Your task to perform on an android device: open device folders in google photos Image 0: 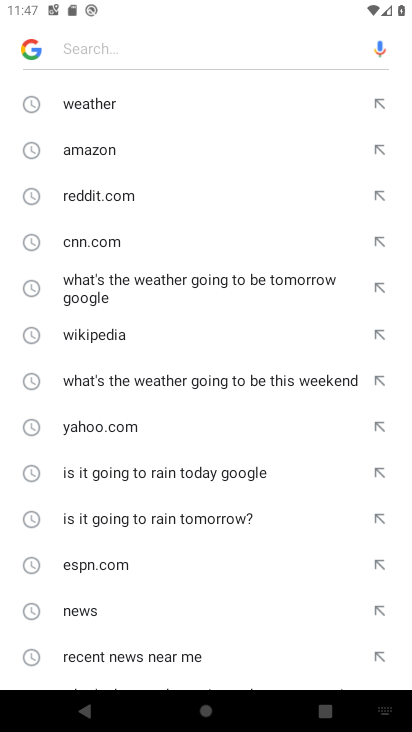
Step 0: press back button
Your task to perform on an android device: open device folders in google photos Image 1: 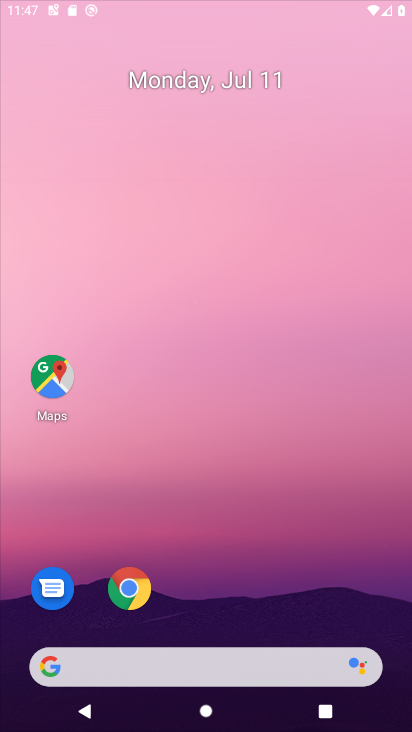
Step 1: press home button
Your task to perform on an android device: open device folders in google photos Image 2: 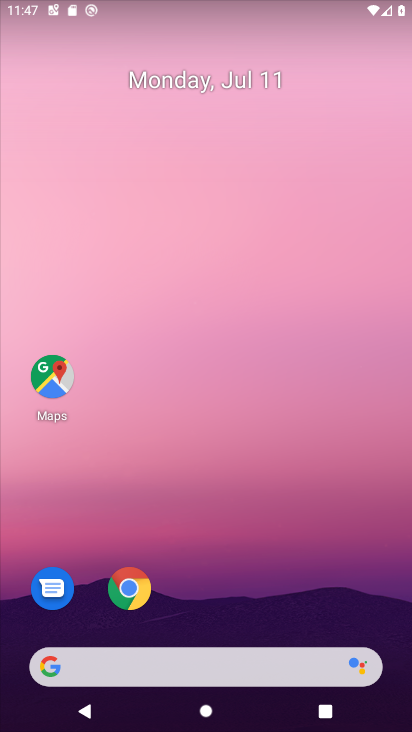
Step 2: drag from (253, 705) to (188, 256)
Your task to perform on an android device: open device folders in google photos Image 3: 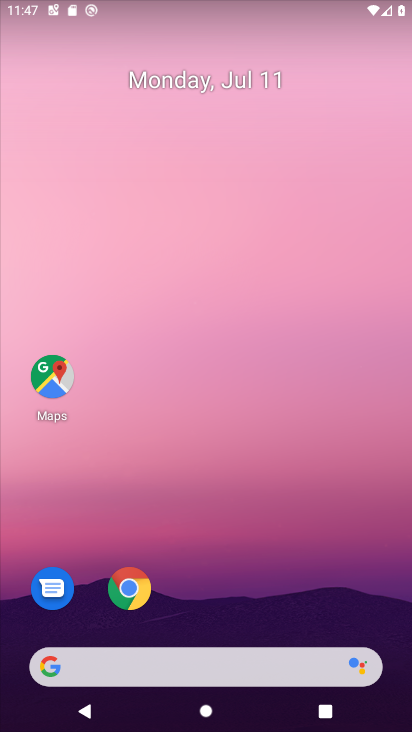
Step 3: drag from (232, 677) to (85, 56)
Your task to perform on an android device: open device folders in google photos Image 4: 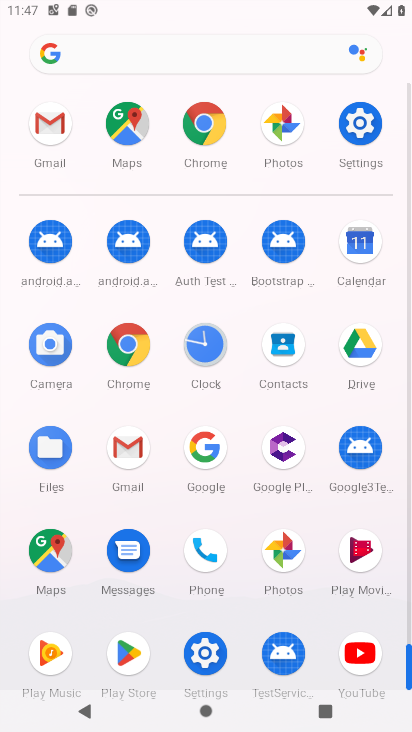
Step 4: drag from (267, 524) to (298, 553)
Your task to perform on an android device: open device folders in google photos Image 5: 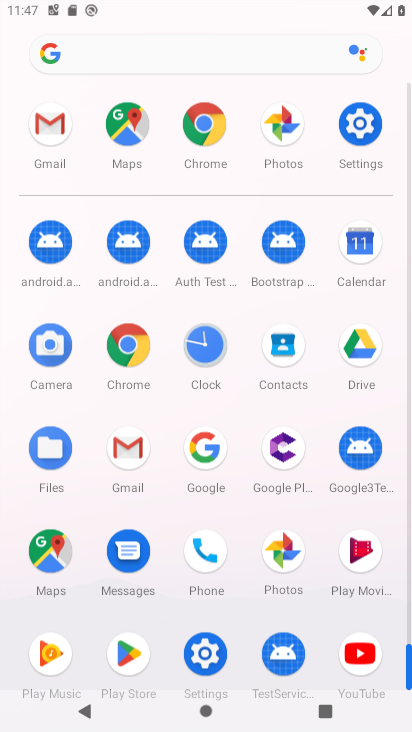
Step 5: click (299, 554)
Your task to perform on an android device: open device folders in google photos Image 6: 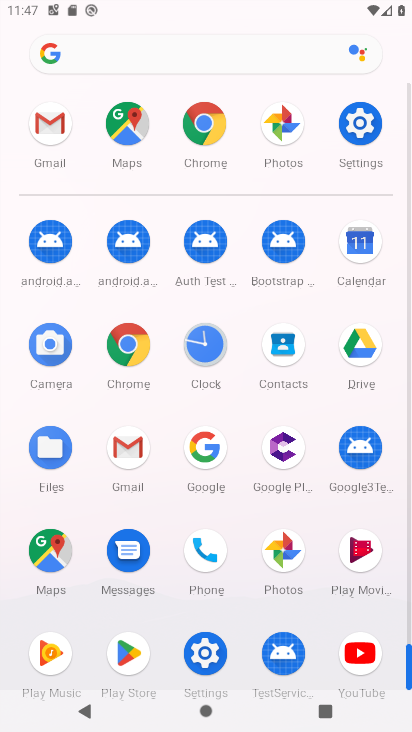
Step 6: click (300, 555)
Your task to perform on an android device: open device folders in google photos Image 7: 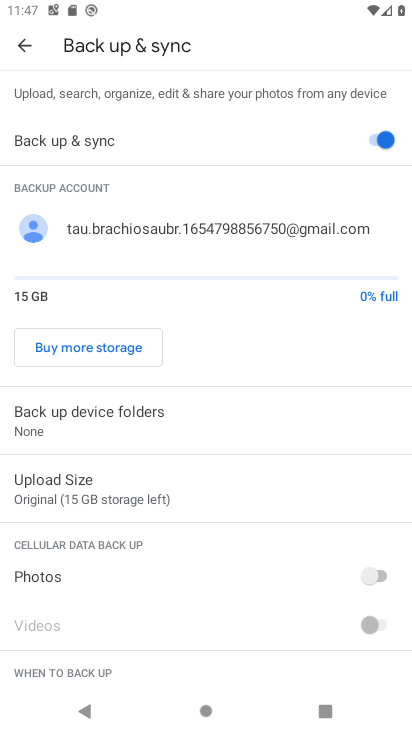
Step 7: click (15, 42)
Your task to perform on an android device: open device folders in google photos Image 8: 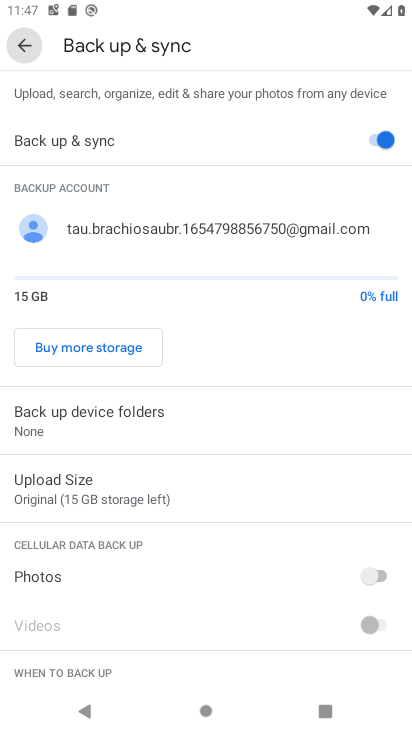
Step 8: click (16, 47)
Your task to perform on an android device: open device folders in google photos Image 9: 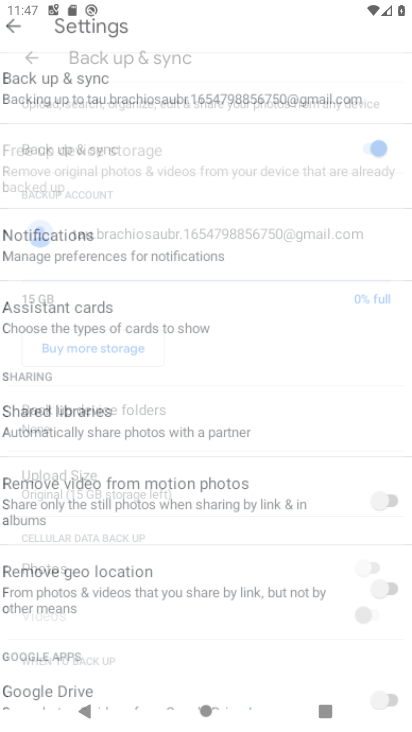
Step 9: click (16, 47)
Your task to perform on an android device: open device folders in google photos Image 10: 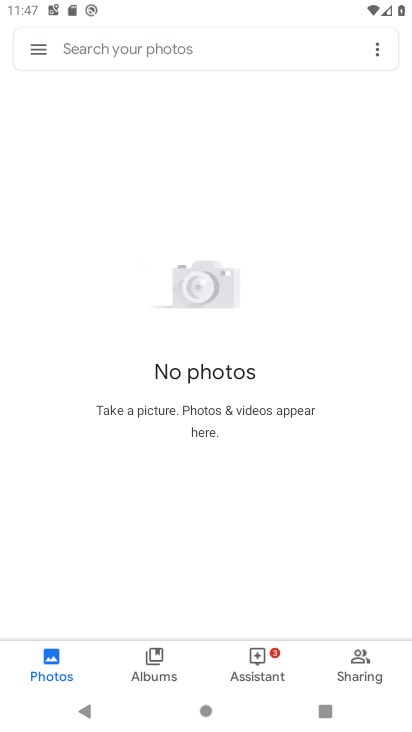
Step 10: click (30, 46)
Your task to perform on an android device: open device folders in google photos Image 11: 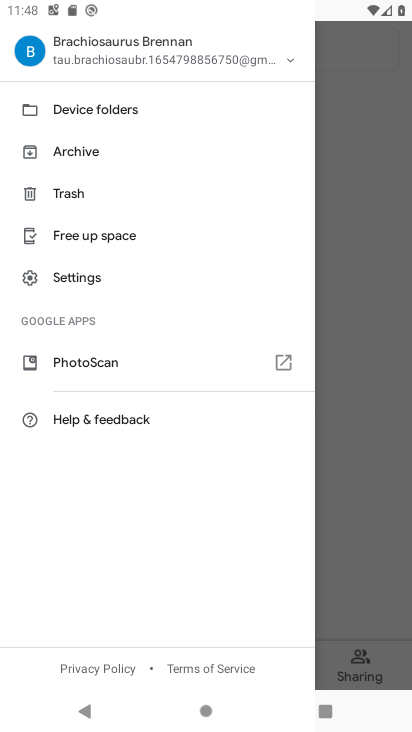
Step 11: click (82, 109)
Your task to perform on an android device: open device folders in google photos Image 12: 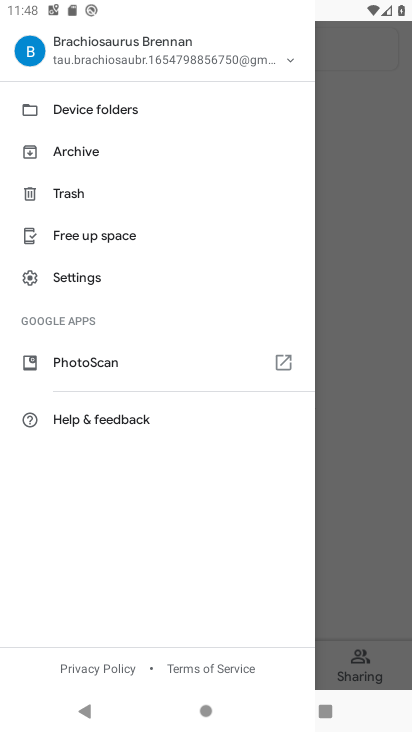
Step 12: click (79, 97)
Your task to perform on an android device: open device folders in google photos Image 13: 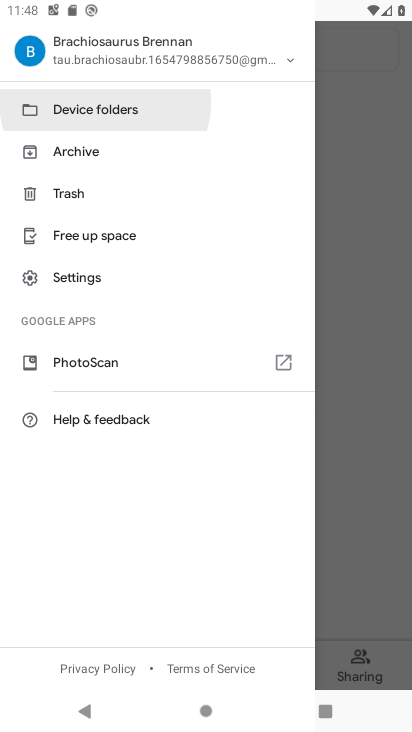
Step 13: click (79, 99)
Your task to perform on an android device: open device folders in google photos Image 14: 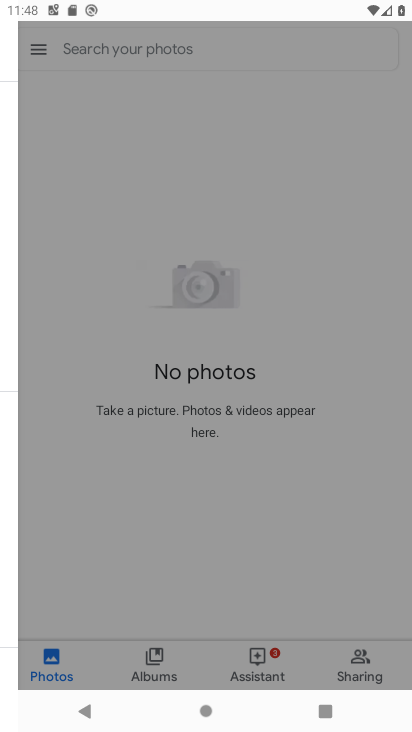
Step 14: click (78, 102)
Your task to perform on an android device: open device folders in google photos Image 15: 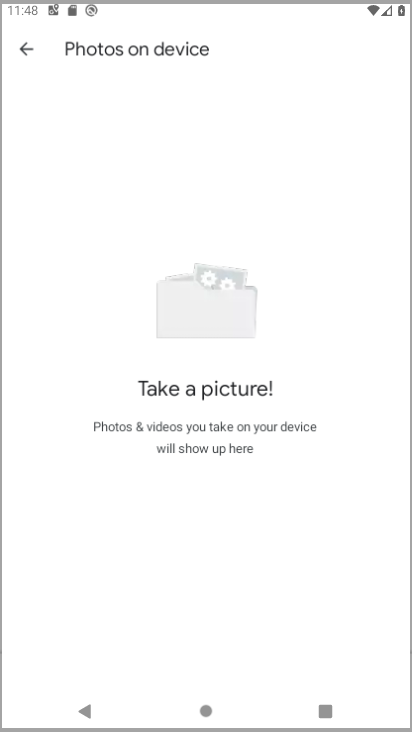
Step 15: click (78, 104)
Your task to perform on an android device: open device folders in google photos Image 16: 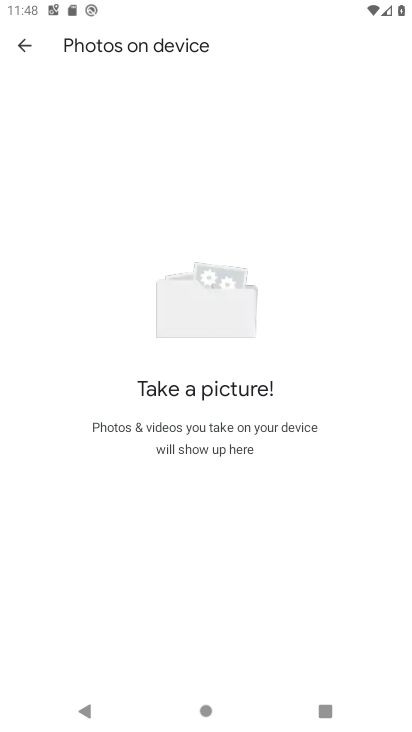
Step 16: task complete